Your task to perform on an android device: delete location history Image 0: 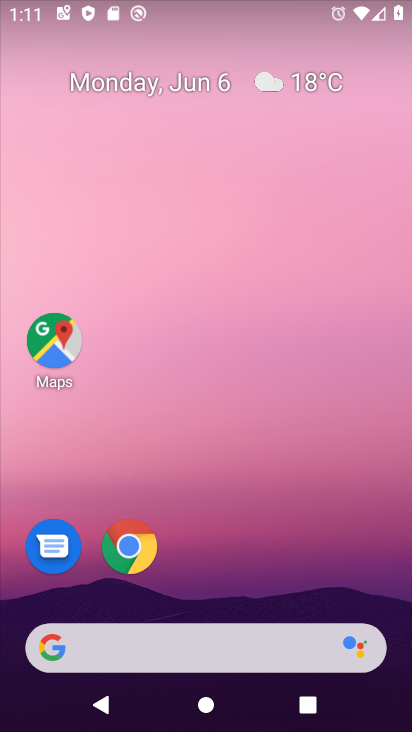
Step 0: click (51, 330)
Your task to perform on an android device: delete location history Image 1: 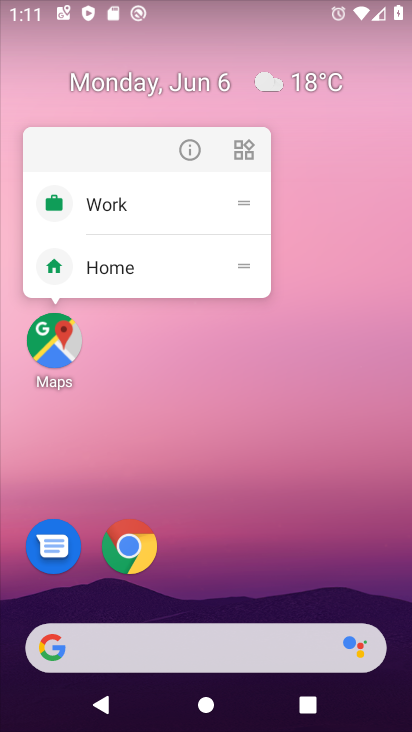
Step 1: click (51, 330)
Your task to perform on an android device: delete location history Image 2: 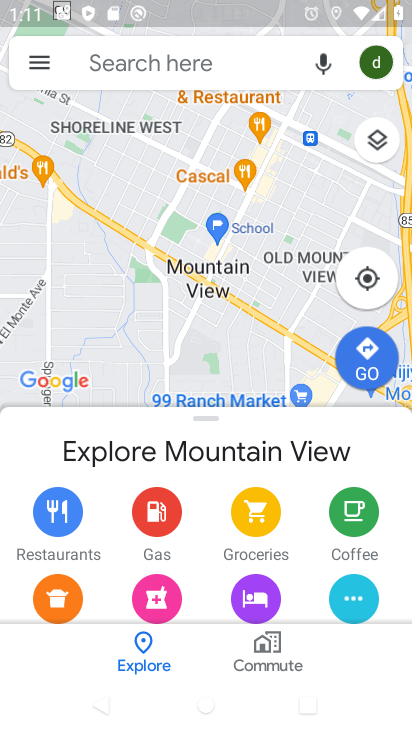
Step 2: click (24, 67)
Your task to perform on an android device: delete location history Image 3: 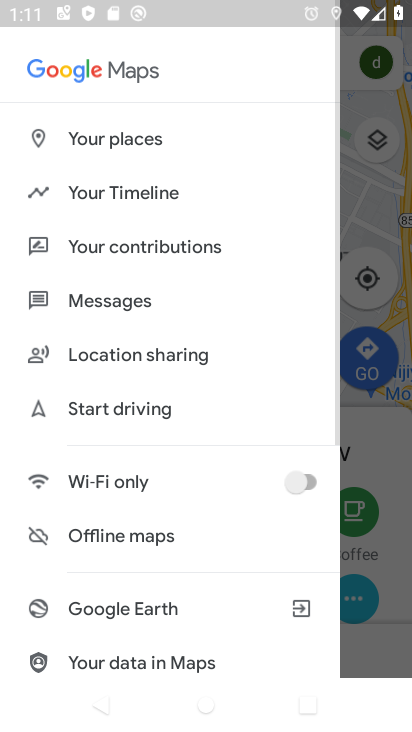
Step 3: click (78, 191)
Your task to perform on an android device: delete location history Image 4: 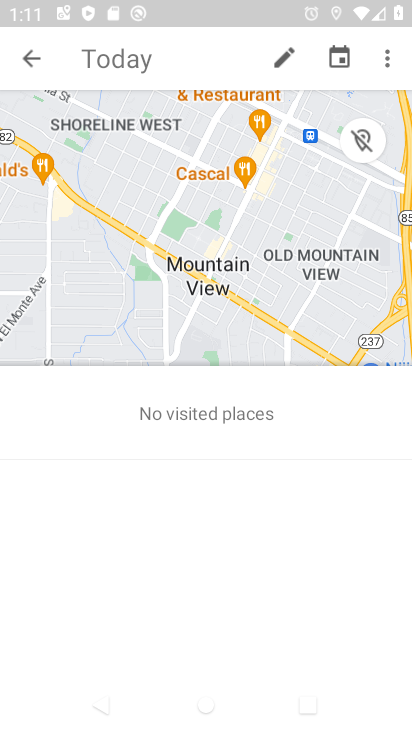
Step 4: click (391, 68)
Your task to perform on an android device: delete location history Image 5: 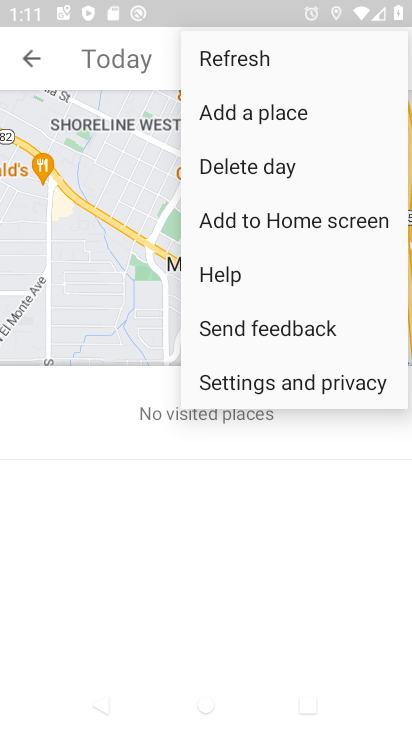
Step 5: click (277, 382)
Your task to perform on an android device: delete location history Image 6: 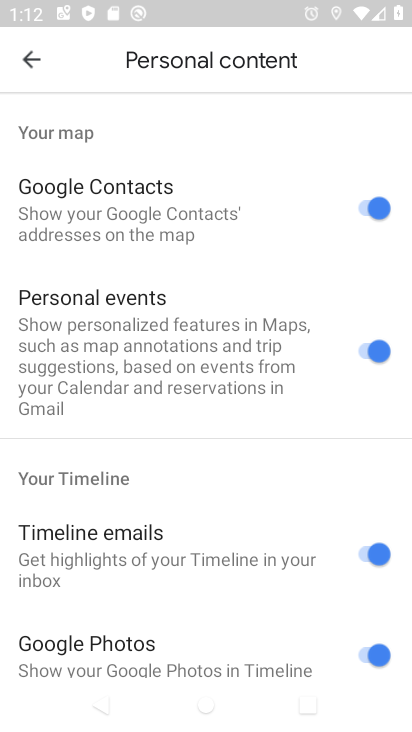
Step 6: drag from (191, 481) to (220, 153)
Your task to perform on an android device: delete location history Image 7: 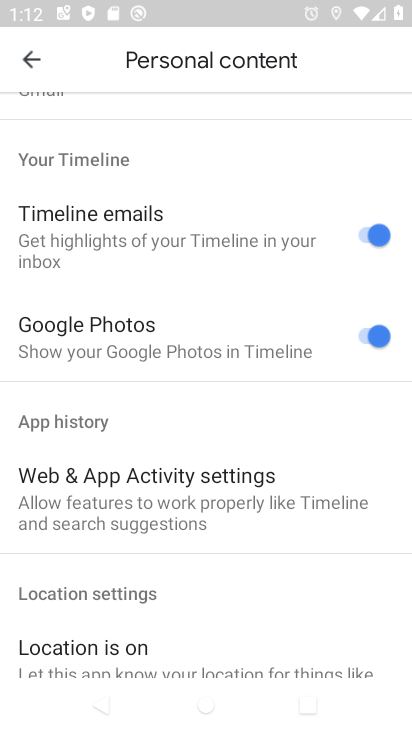
Step 7: drag from (164, 565) to (204, 271)
Your task to perform on an android device: delete location history Image 8: 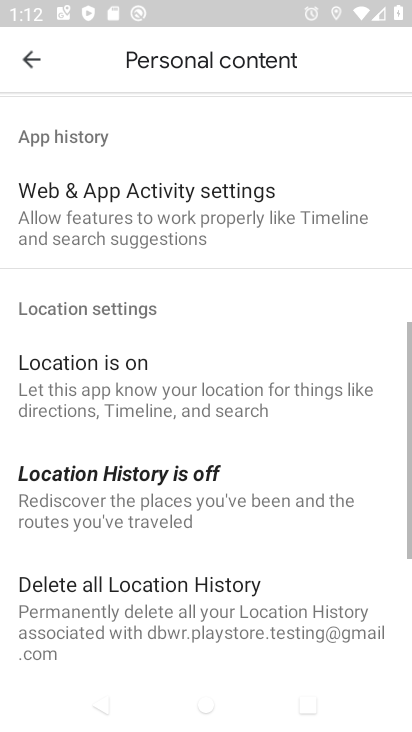
Step 8: click (217, 621)
Your task to perform on an android device: delete location history Image 9: 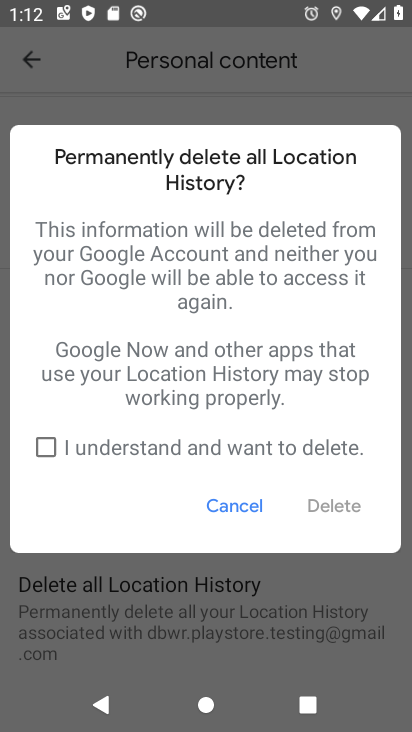
Step 9: click (52, 453)
Your task to perform on an android device: delete location history Image 10: 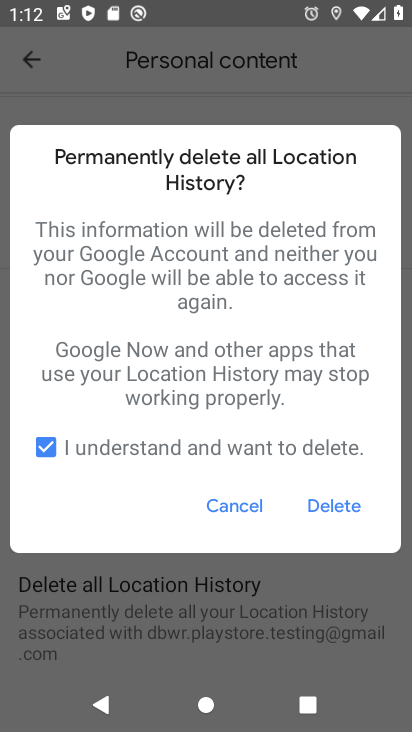
Step 10: click (333, 507)
Your task to perform on an android device: delete location history Image 11: 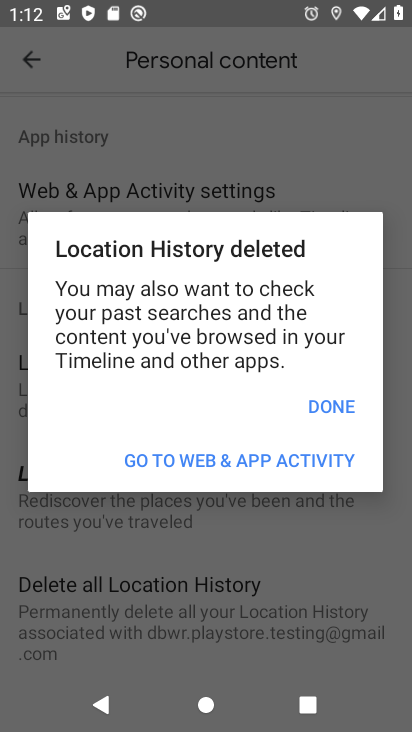
Step 11: click (317, 407)
Your task to perform on an android device: delete location history Image 12: 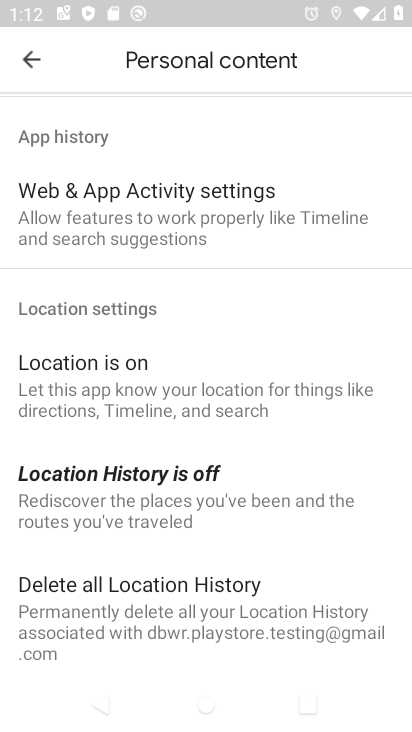
Step 12: task complete